Your task to perform on an android device: Open Google Chrome Image 0: 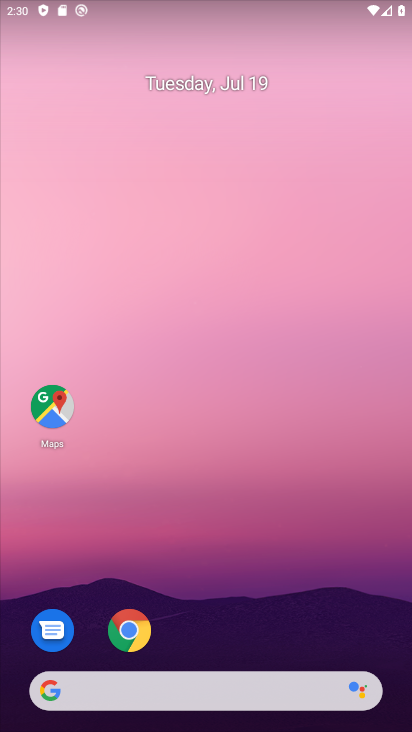
Step 0: click (142, 628)
Your task to perform on an android device: Open Google Chrome Image 1: 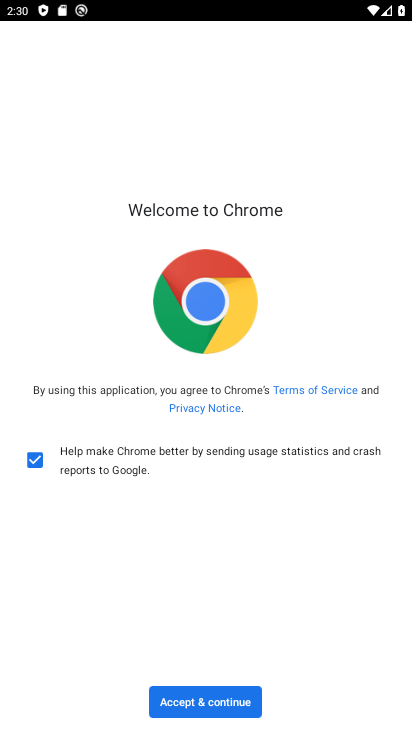
Step 1: click (201, 713)
Your task to perform on an android device: Open Google Chrome Image 2: 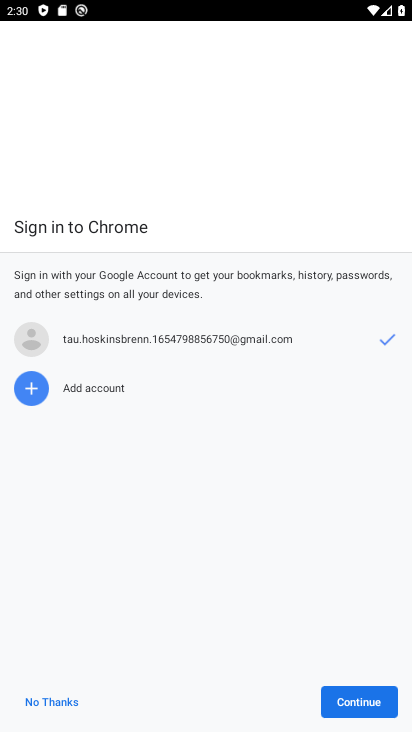
Step 2: click (345, 708)
Your task to perform on an android device: Open Google Chrome Image 3: 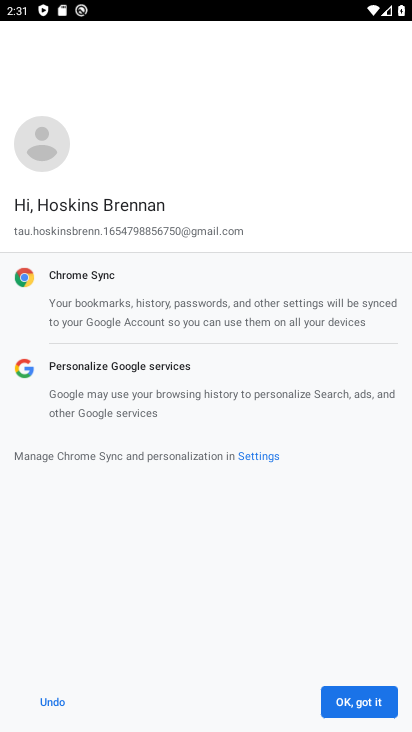
Step 3: click (345, 708)
Your task to perform on an android device: Open Google Chrome Image 4: 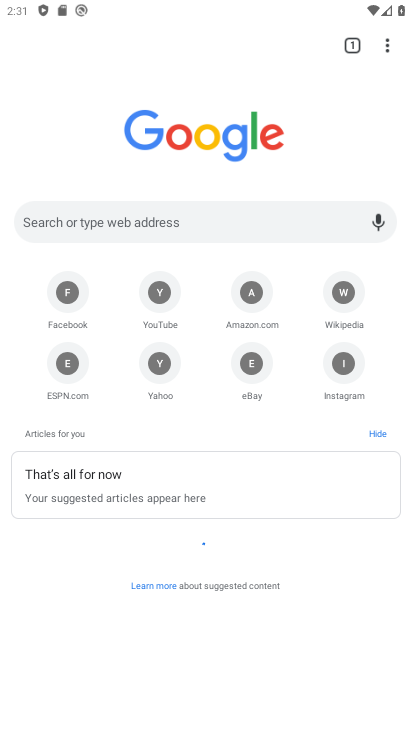
Step 4: task complete